Your task to perform on an android device: Go to Yahoo.com Image 0: 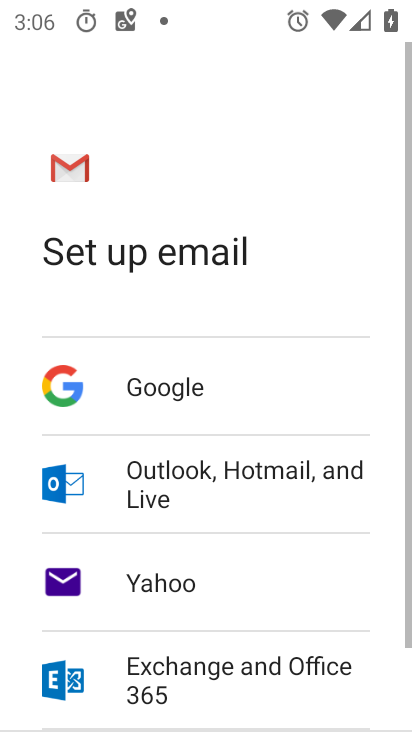
Step 0: press home button
Your task to perform on an android device: Go to Yahoo.com Image 1: 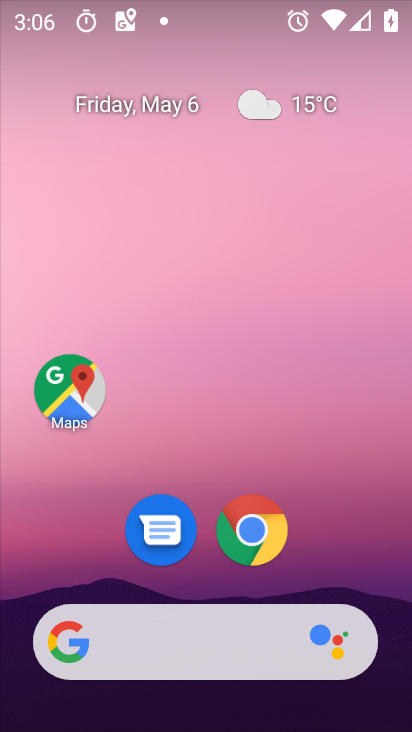
Step 1: click (242, 504)
Your task to perform on an android device: Go to Yahoo.com Image 2: 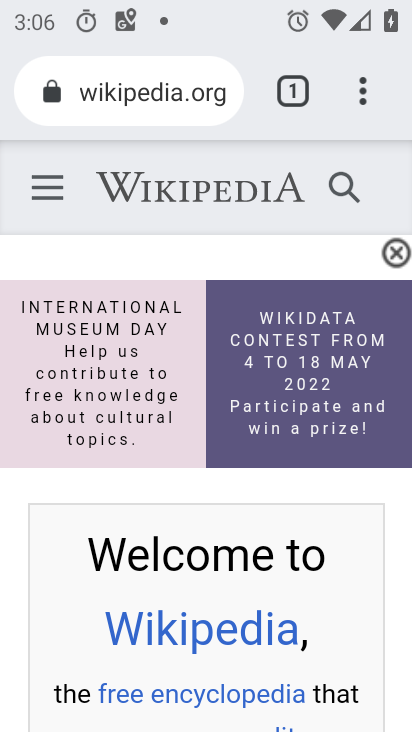
Step 2: click (167, 93)
Your task to perform on an android device: Go to Yahoo.com Image 3: 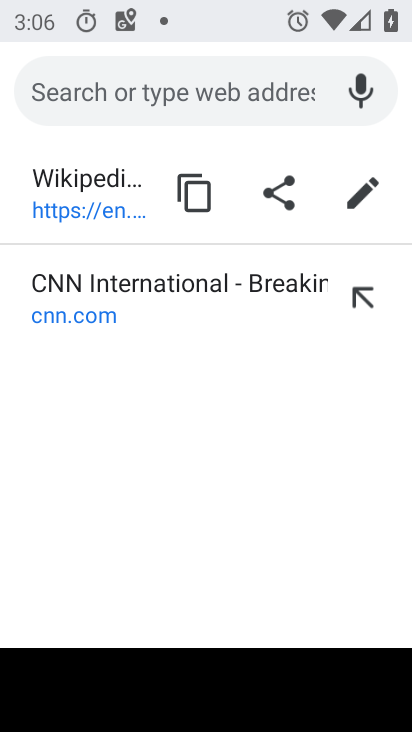
Step 3: type "yahoo.com"
Your task to perform on an android device: Go to Yahoo.com Image 4: 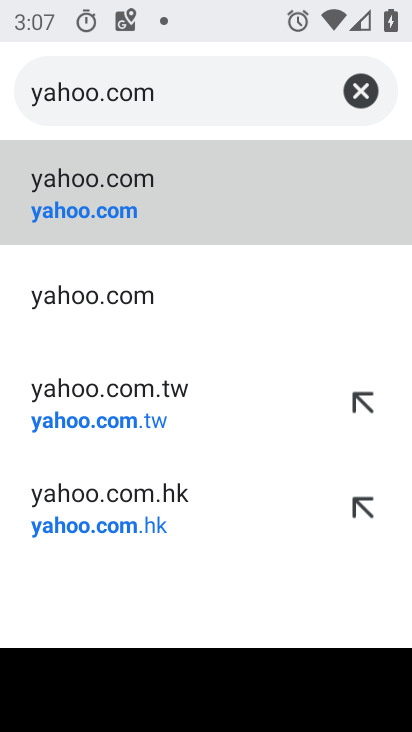
Step 4: click (70, 199)
Your task to perform on an android device: Go to Yahoo.com Image 5: 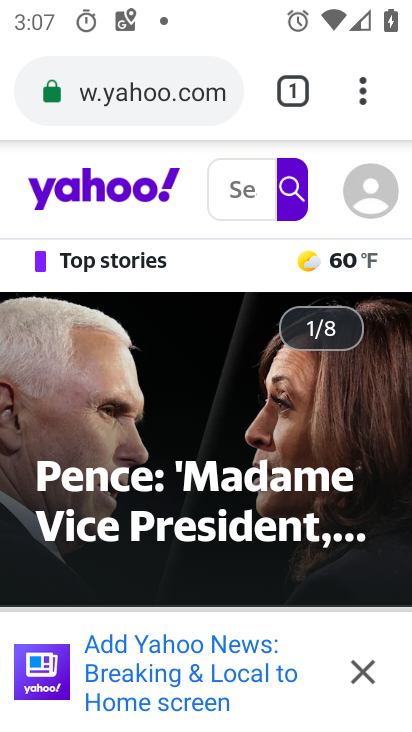
Step 5: task complete